Your task to perform on an android device: uninstall "Google News" Image 0: 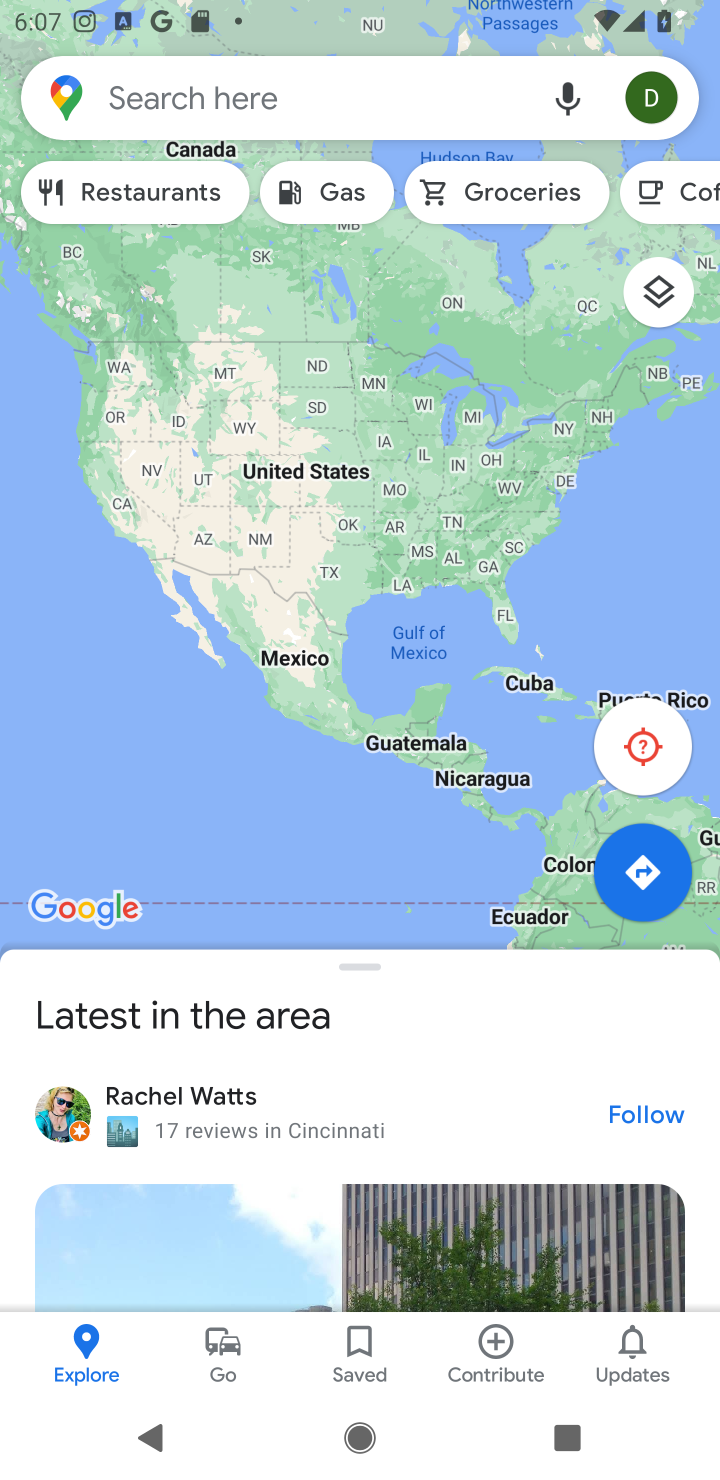
Step 0: press home button
Your task to perform on an android device: uninstall "Google News" Image 1: 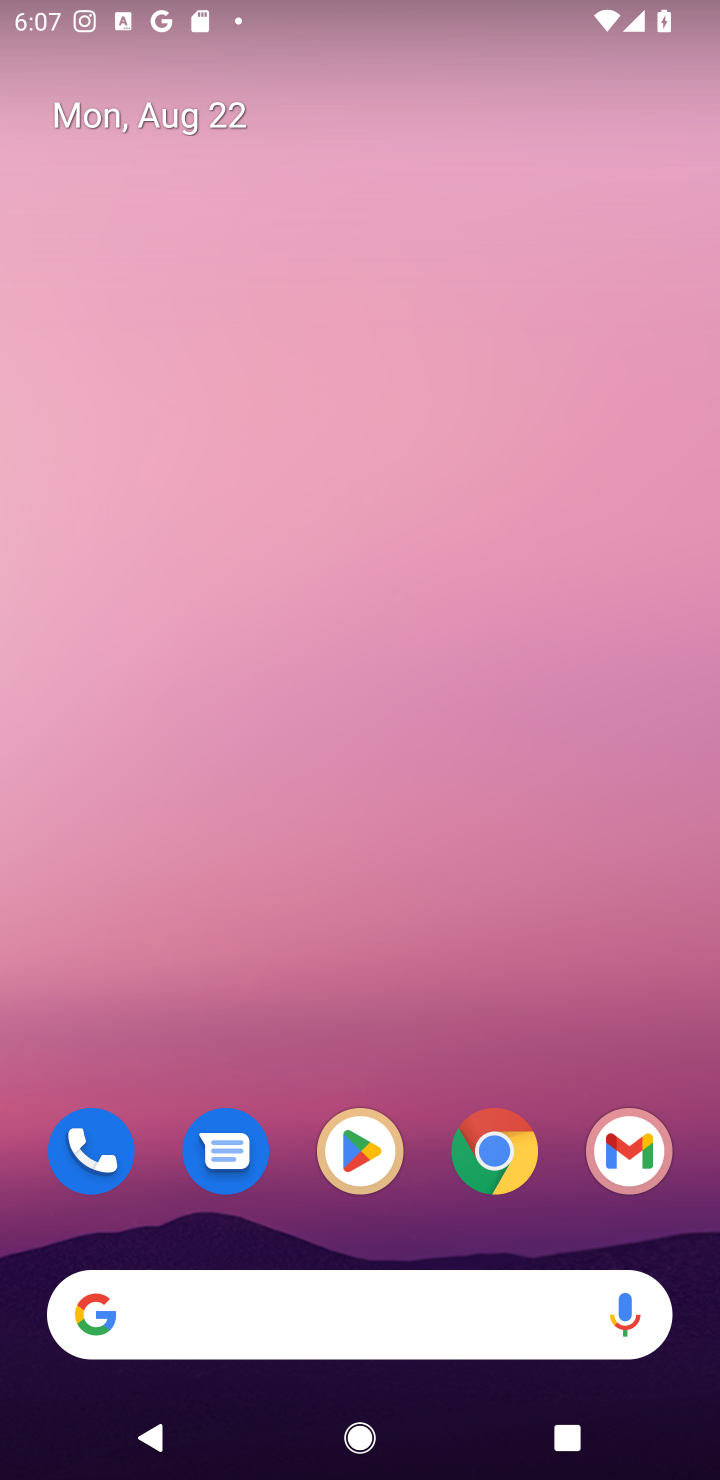
Step 1: click (370, 1148)
Your task to perform on an android device: uninstall "Google News" Image 2: 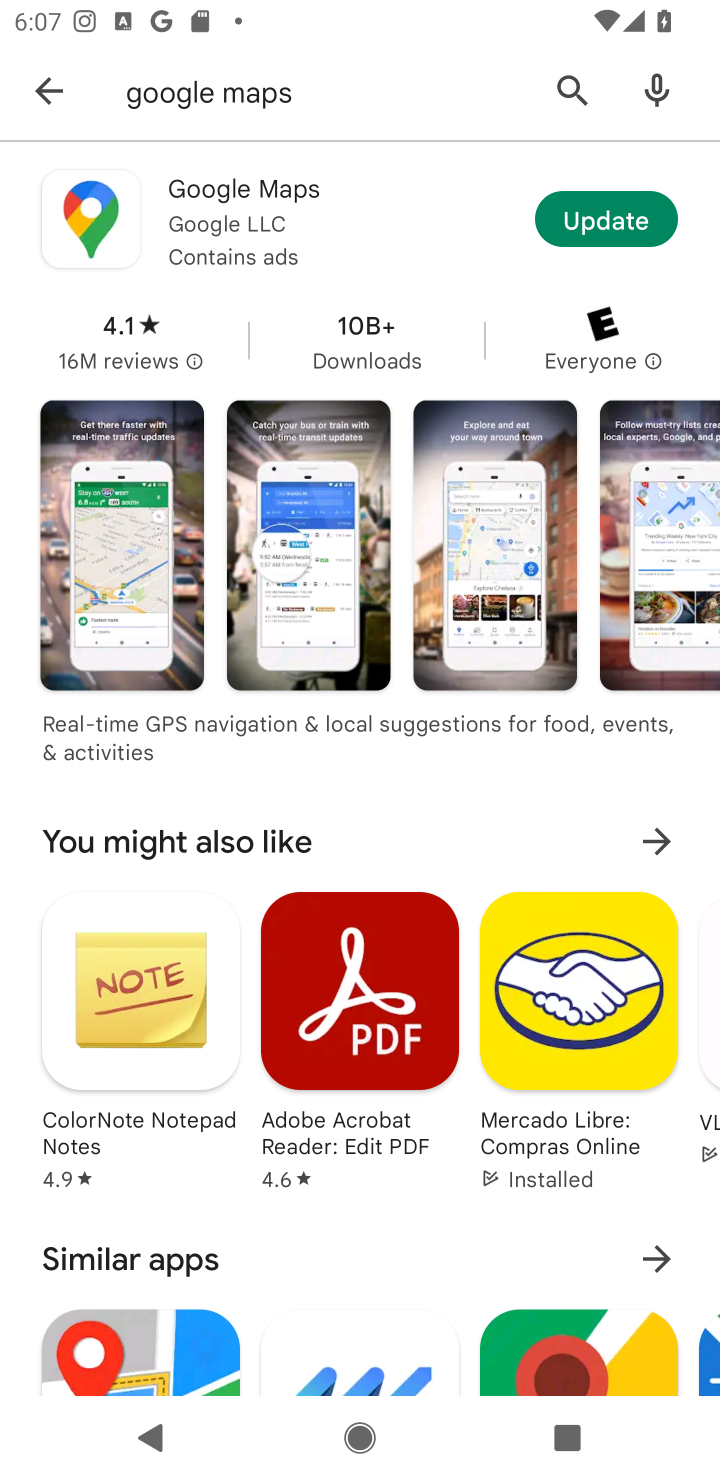
Step 2: click (562, 84)
Your task to perform on an android device: uninstall "Google News" Image 3: 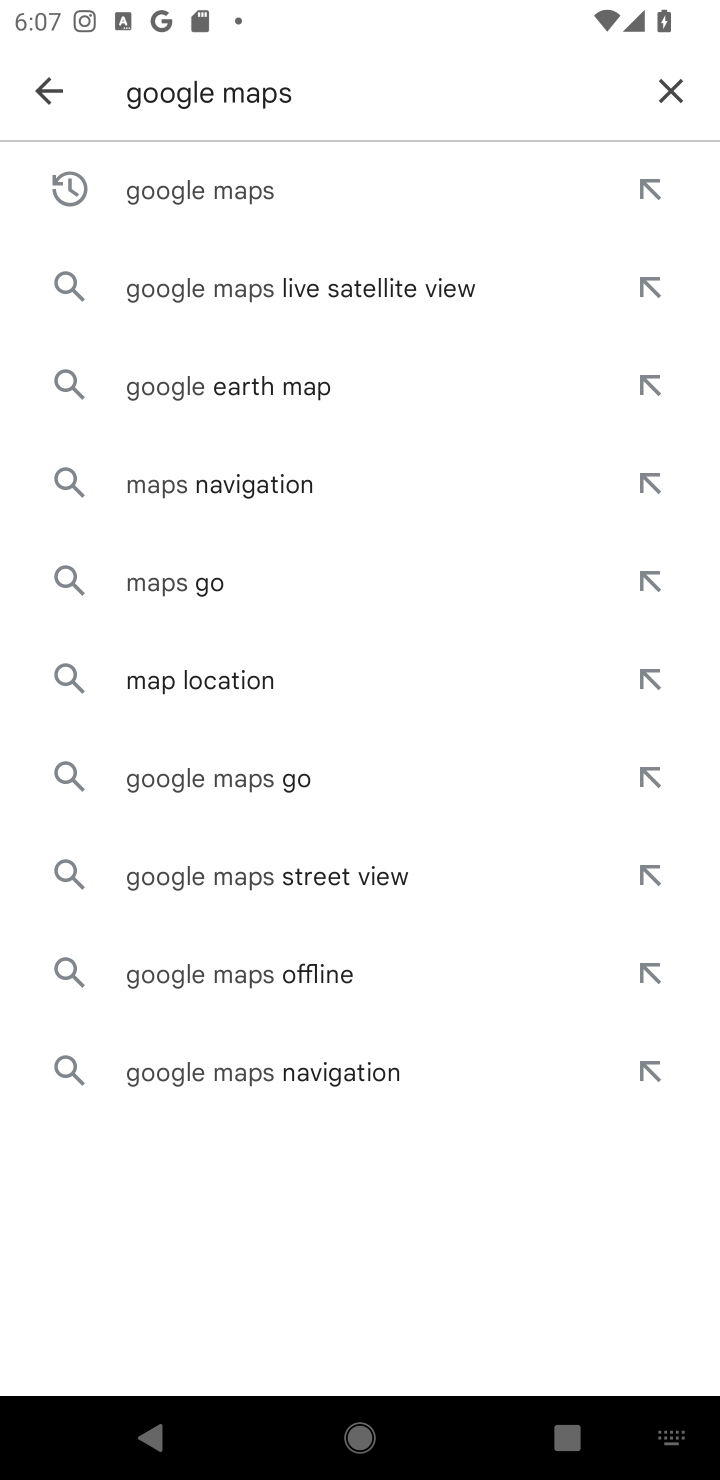
Step 3: click (662, 81)
Your task to perform on an android device: uninstall "Google News" Image 4: 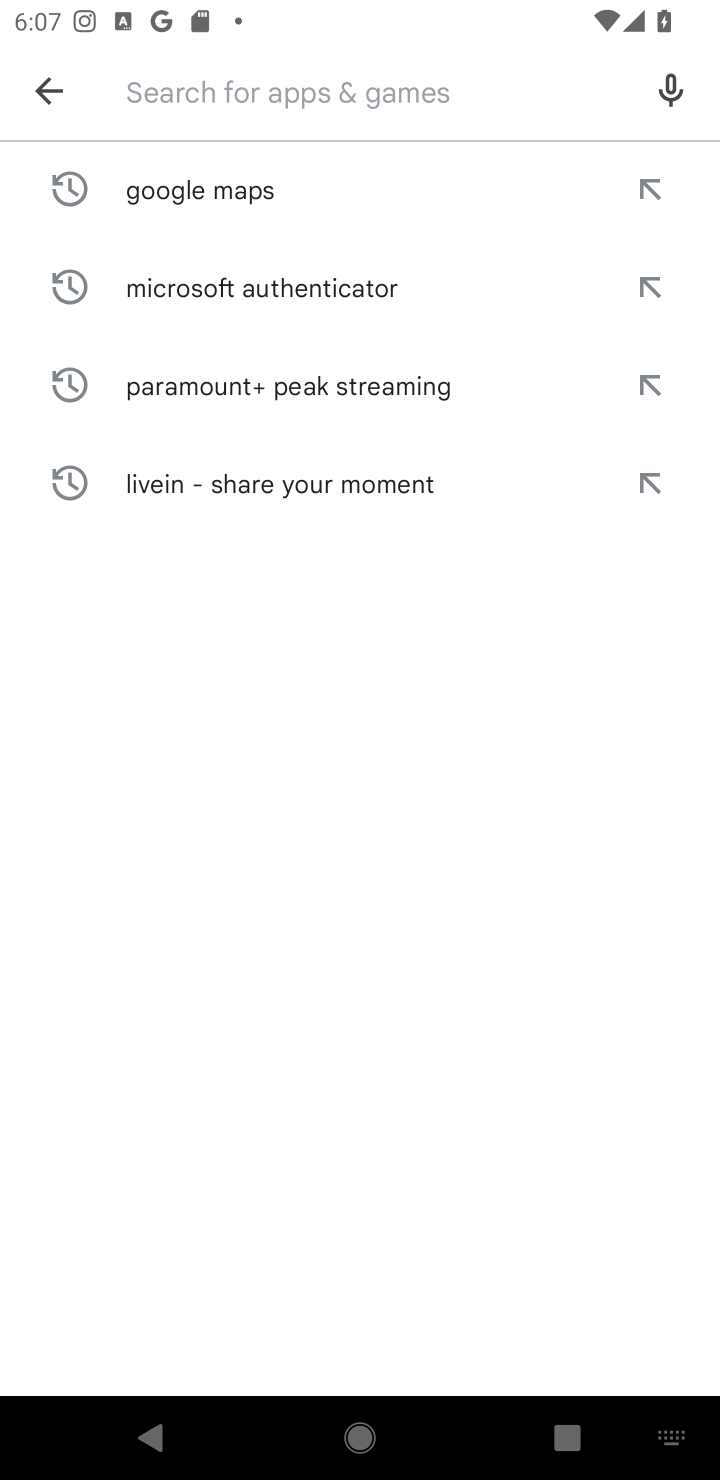
Step 4: type "Google News"
Your task to perform on an android device: uninstall "Google News" Image 5: 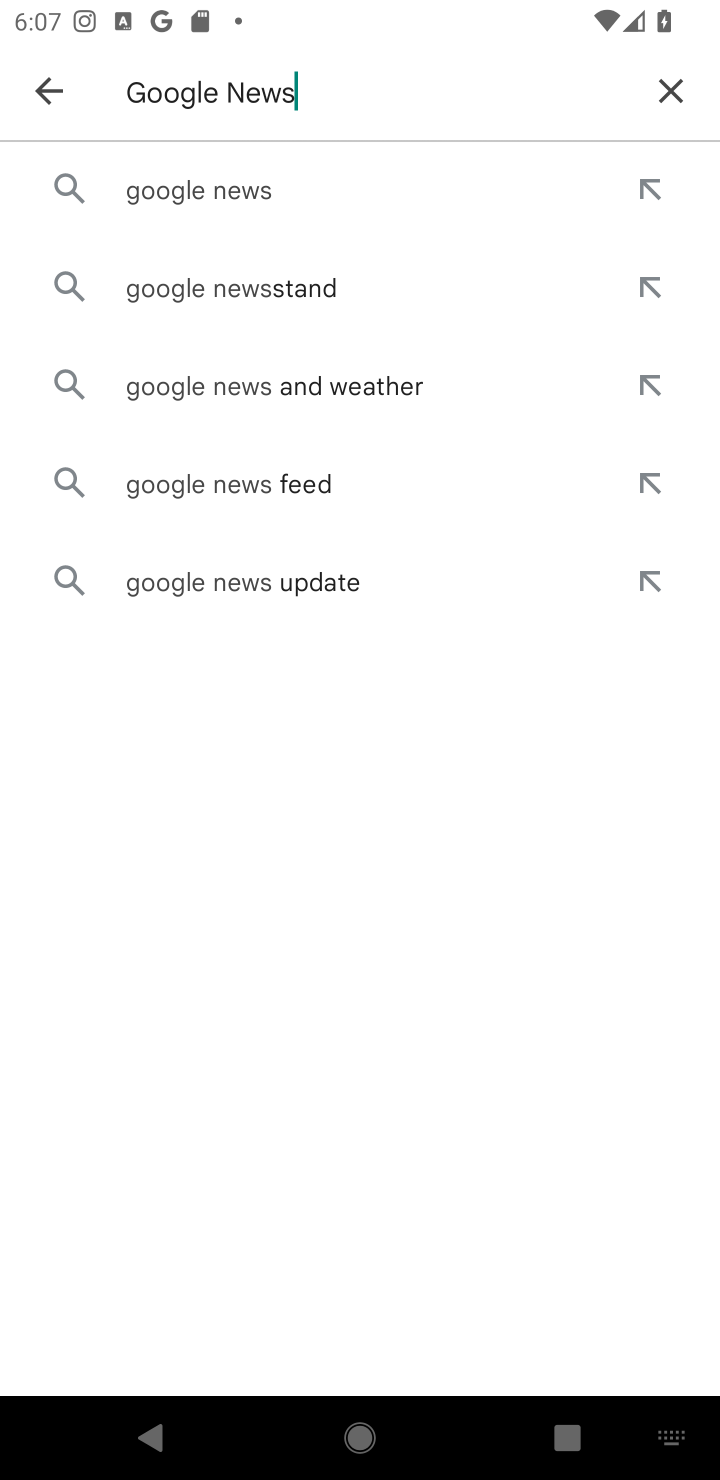
Step 5: click (247, 188)
Your task to perform on an android device: uninstall "Google News" Image 6: 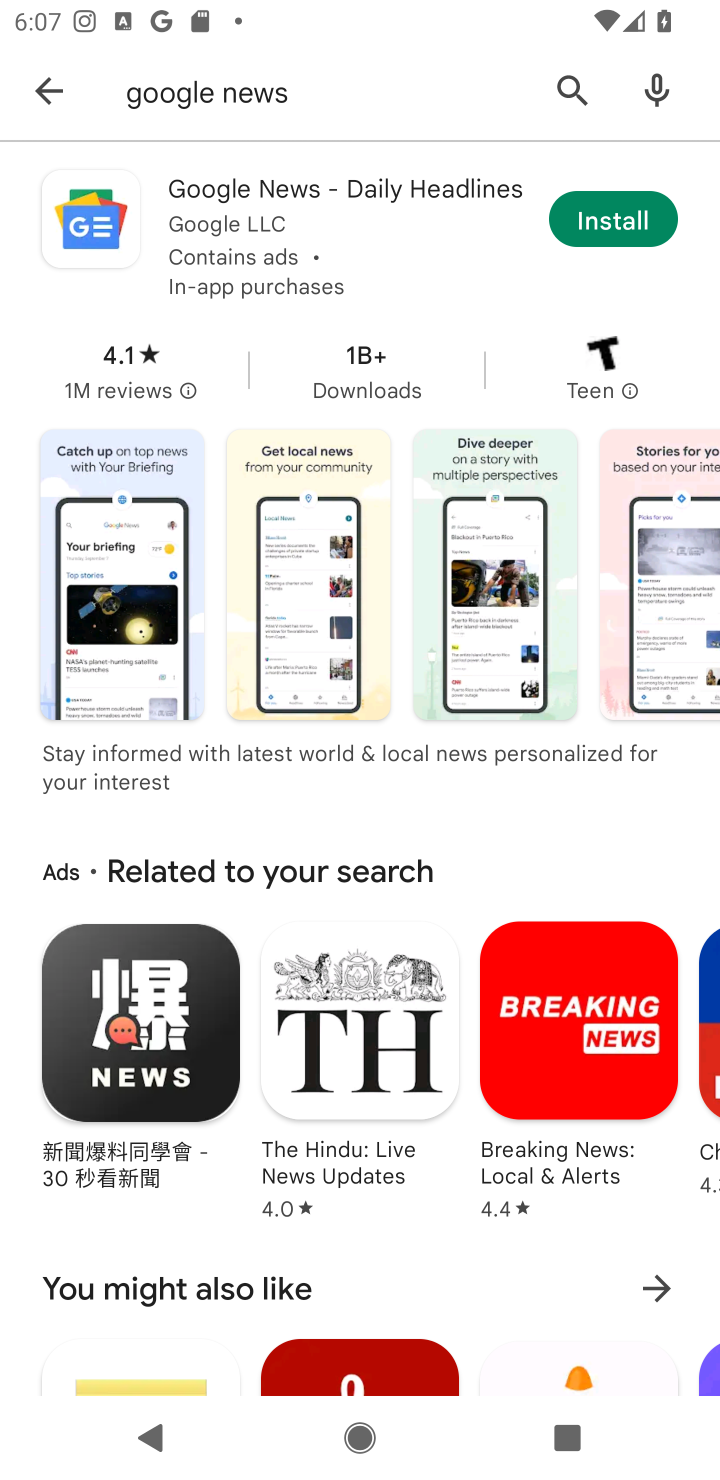
Step 6: task complete